Your task to perform on an android device: Open the phone app and click the voicemail tab. Image 0: 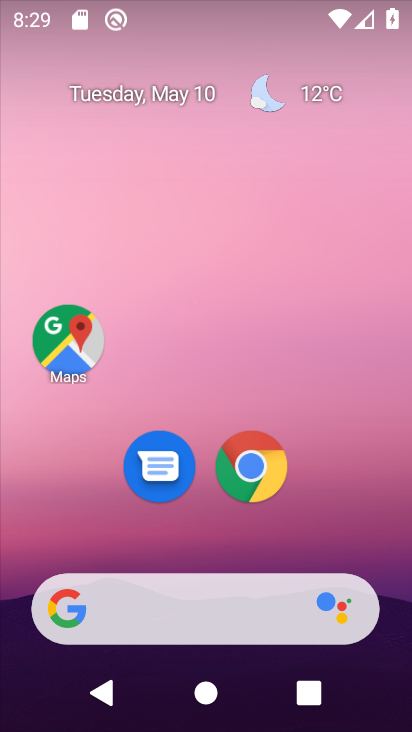
Step 0: drag from (235, 545) to (242, 40)
Your task to perform on an android device: Open the phone app and click the voicemail tab. Image 1: 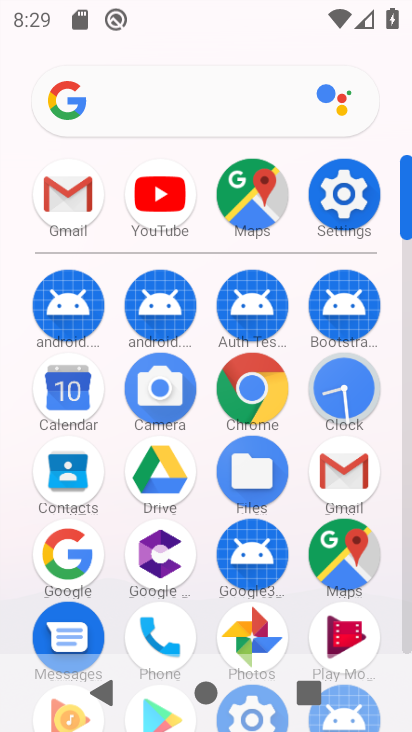
Step 1: click (167, 620)
Your task to perform on an android device: Open the phone app and click the voicemail tab. Image 2: 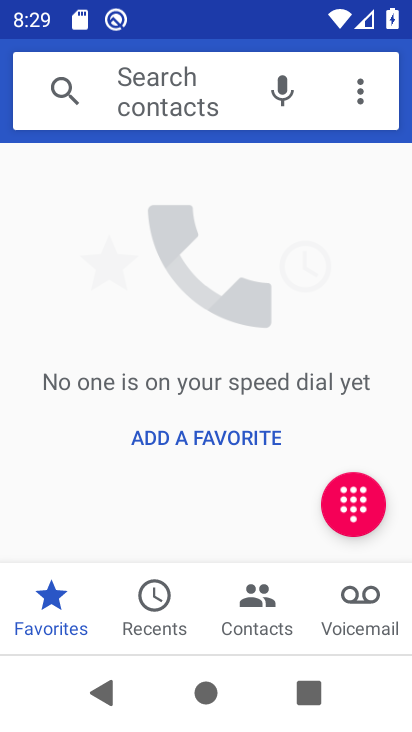
Step 2: click (358, 600)
Your task to perform on an android device: Open the phone app and click the voicemail tab. Image 3: 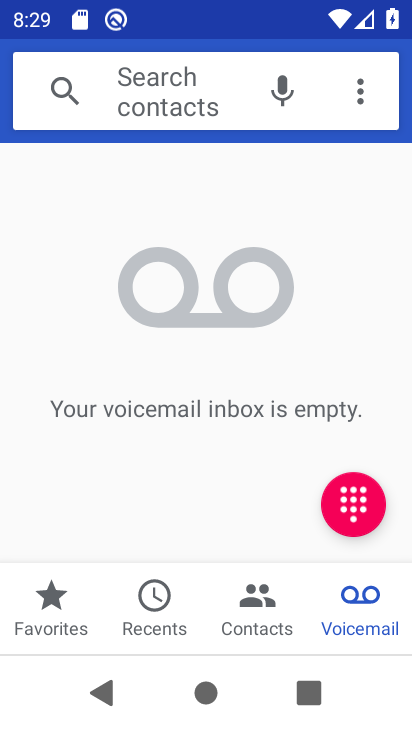
Step 3: task complete